Your task to perform on an android device: turn on sleep mode Image 0: 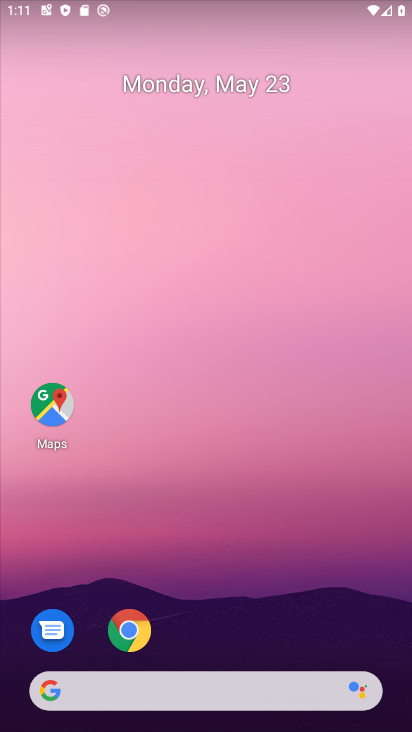
Step 0: drag from (226, 597) to (221, 99)
Your task to perform on an android device: turn on sleep mode Image 1: 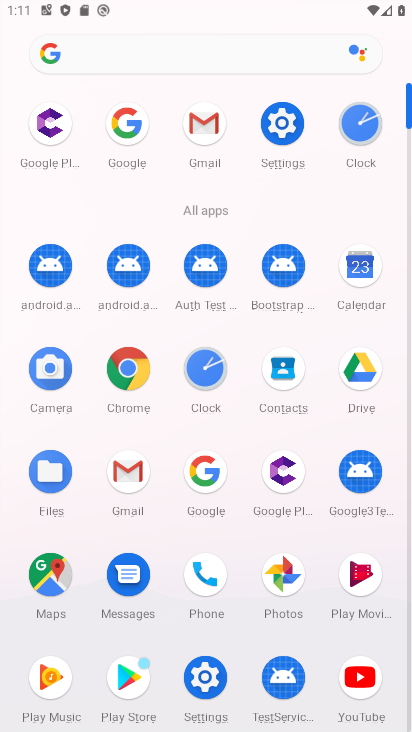
Step 1: click (280, 124)
Your task to perform on an android device: turn on sleep mode Image 2: 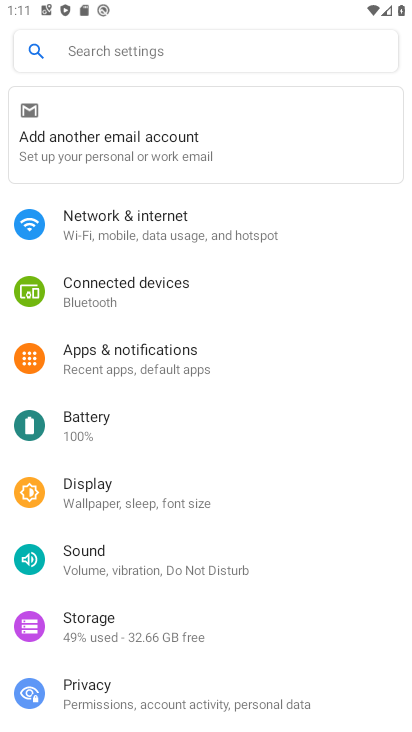
Step 2: click (121, 496)
Your task to perform on an android device: turn on sleep mode Image 3: 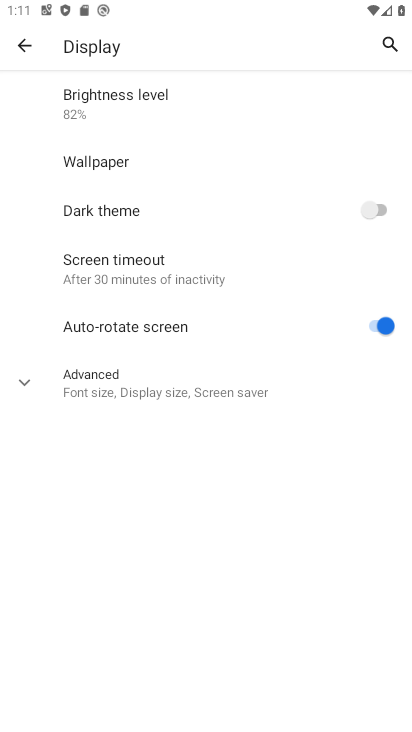
Step 3: click (116, 263)
Your task to perform on an android device: turn on sleep mode Image 4: 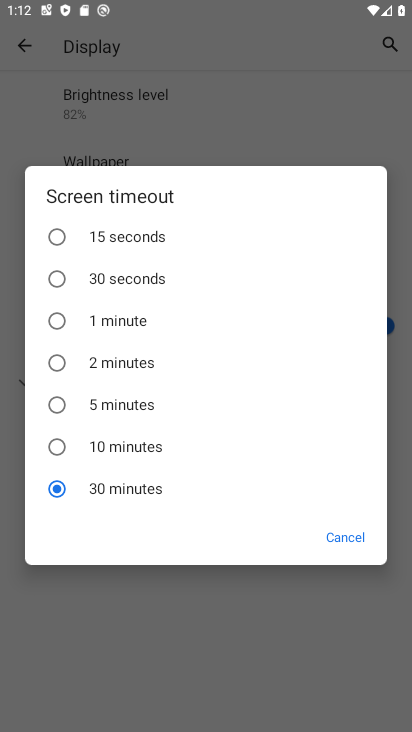
Step 4: task complete